Your task to perform on an android device: change notification settings in the gmail app Image 0: 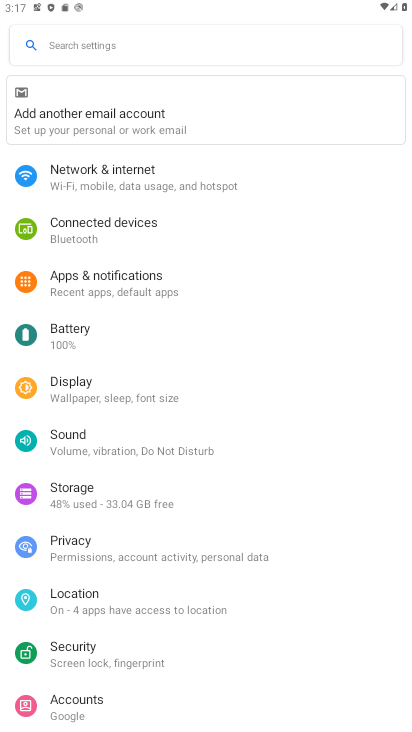
Step 0: press back button
Your task to perform on an android device: change notification settings in the gmail app Image 1: 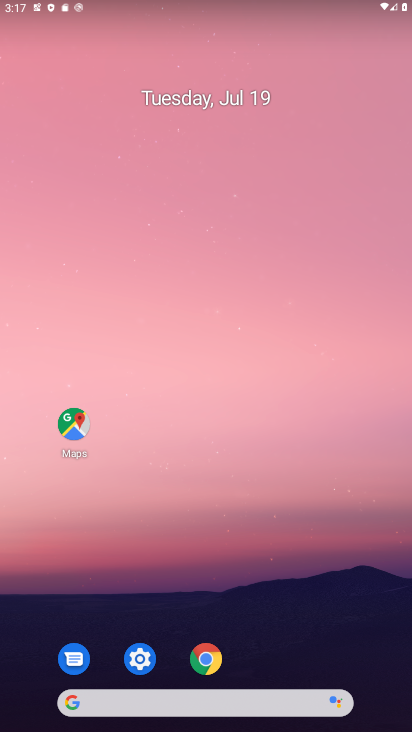
Step 1: drag from (276, 682) to (134, 137)
Your task to perform on an android device: change notification settings in the gmail app Image 2: 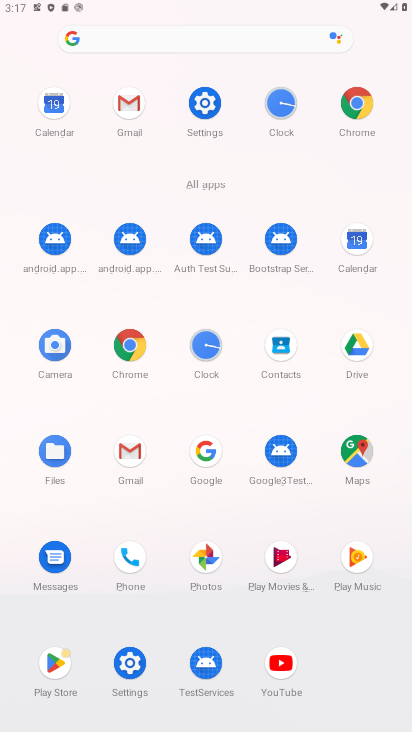
Step 2: click (116, 442)
Your task to perform on an android device: change notification settings in the gmail app Image 3: 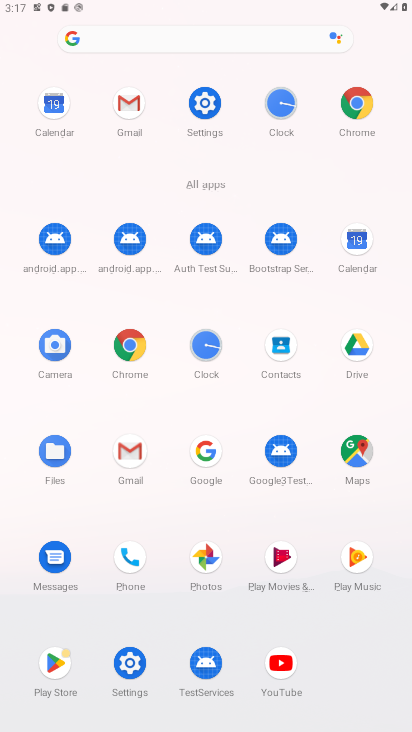
Step 3: click (115, 441)
Your task to perform on an android device: change notification settings in the gmail app Image 4: 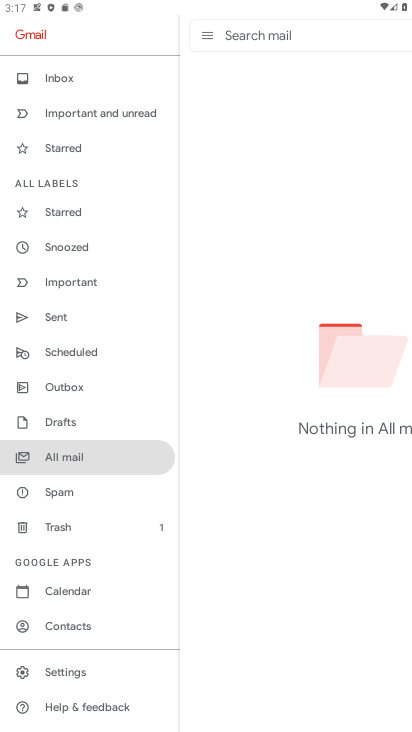
Step 4: click (63, 659)
Your task to perform on an android device: change notification settings in the gmail app Image 5: 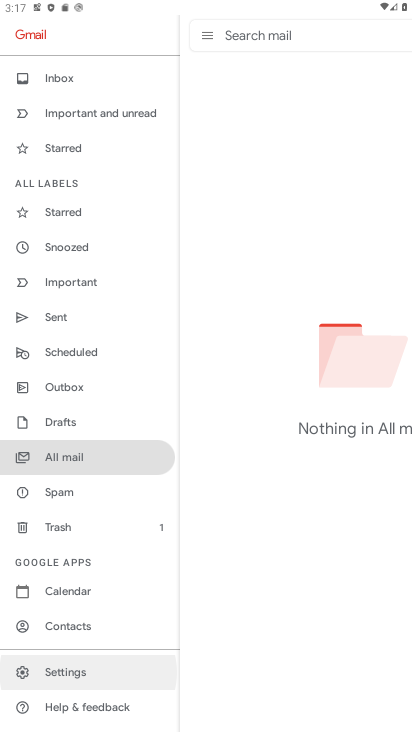
Step 5: click (63, 659)
Your task to perform on an android device: change notification settings in the gmail app Image 6: 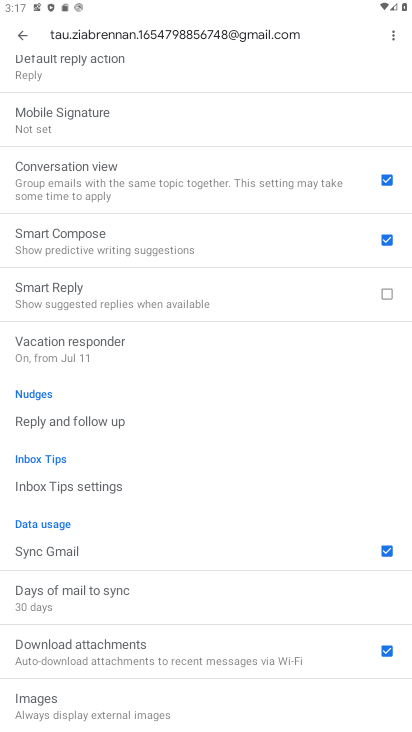
Step 6: drag from (130, 561) to (76, 171)
Your task to perform on an android device: change notification settings in the gmail app Image 7: 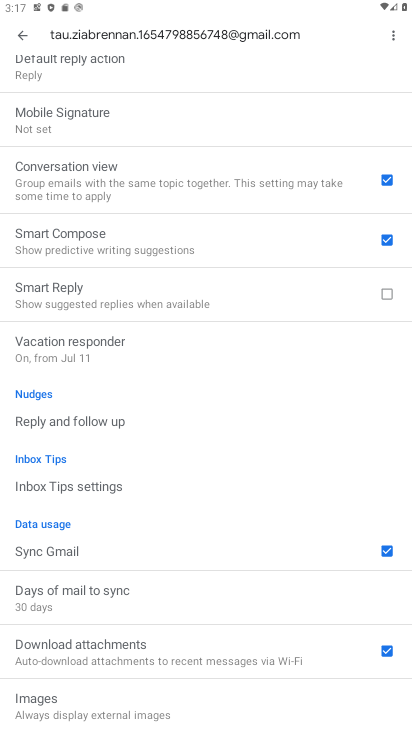
Step 7: drag from (132, 540) to (87, 220)
Your task to perform on an android device: change notification settings in the gmail app Image 8: 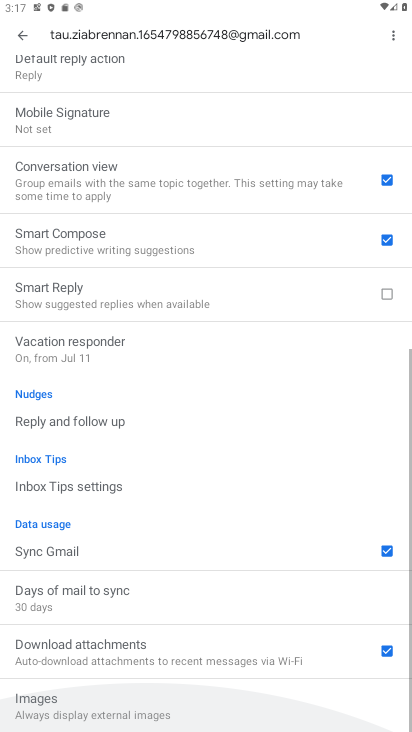
Step 8: drag from (81, 170) to (153, 410)
Your task to perform on an android device: change notification settings in the gmail app Image 9: 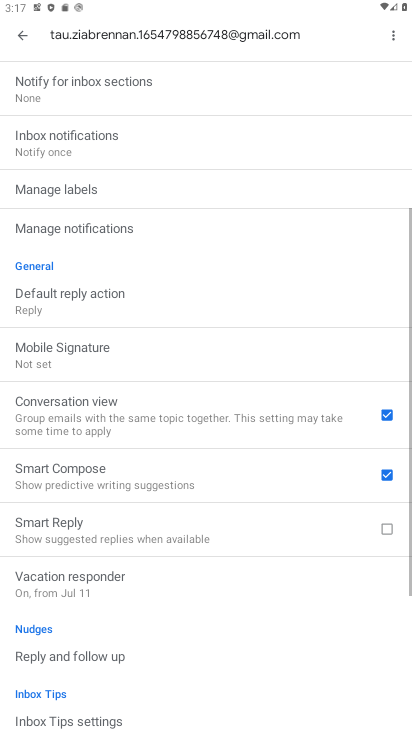
Step 9: drag from (133, 222) to (156, 387)
Your task to perform on an android device: change notification settings in the gmail app Image 10: 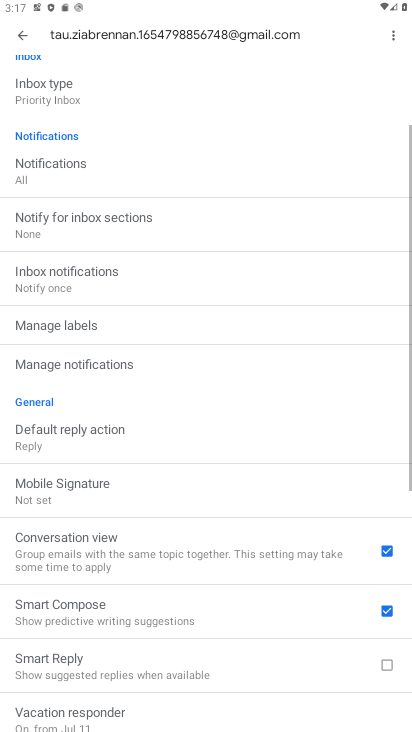
Step 10: drag from (124, 270) to (166, 519)
Your task to perform on an android device: change notification settings in the gmail app Image 11: 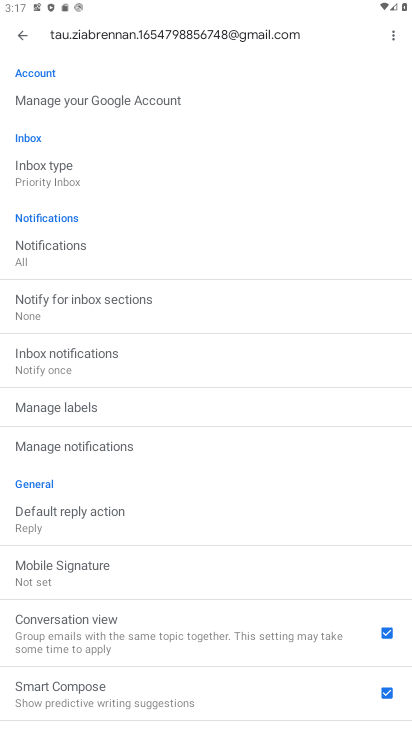
Step 11: click (52, 234)
Your task to perform on an android device: change notification settings in the gmail app Image 12: 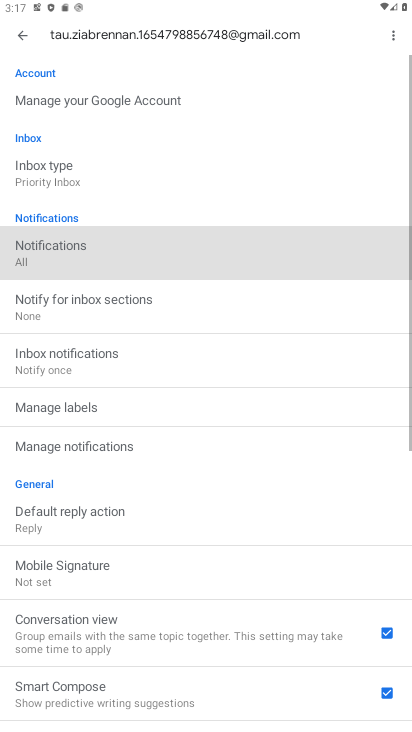
Step 12: click (52, 234)
Your task to perform on an android device: change notification settings in the gmail app Image 13: 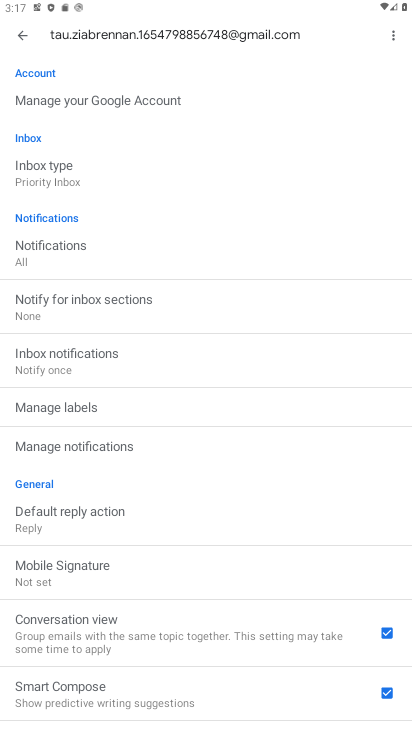
Step 13: task complete